Your task to perform on an android device: Open Yahoo.com Image 0: 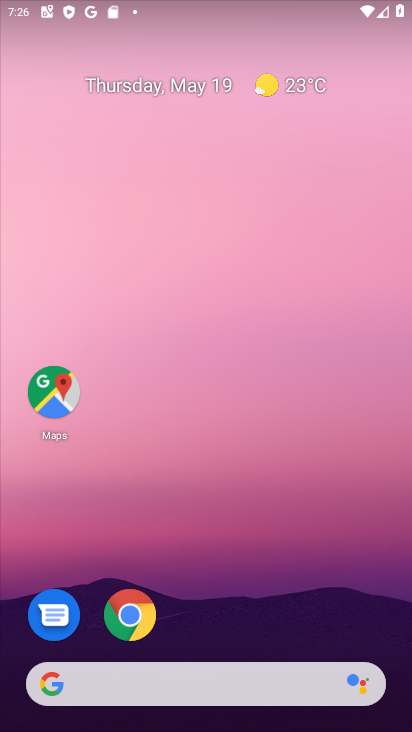
Step 0: drag from (386, 623) to (302, 57)
Your task to perform on an android device: Open Yahoo.com Image 1: 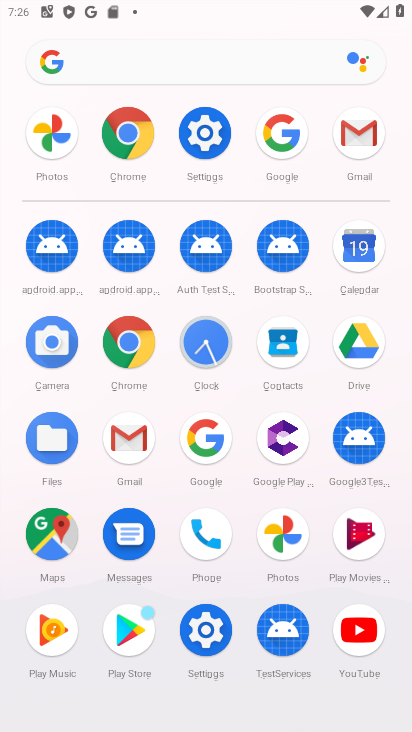
Step 1: click (128, 129)
Your task to perform on an android device: Open Yahoo.com Image 2: 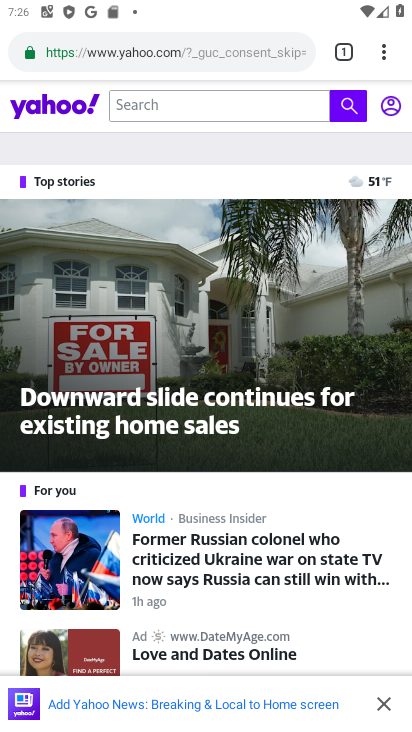
Step 2: task complete